Your task to perform on an android device: Open privacy settings Image 0: 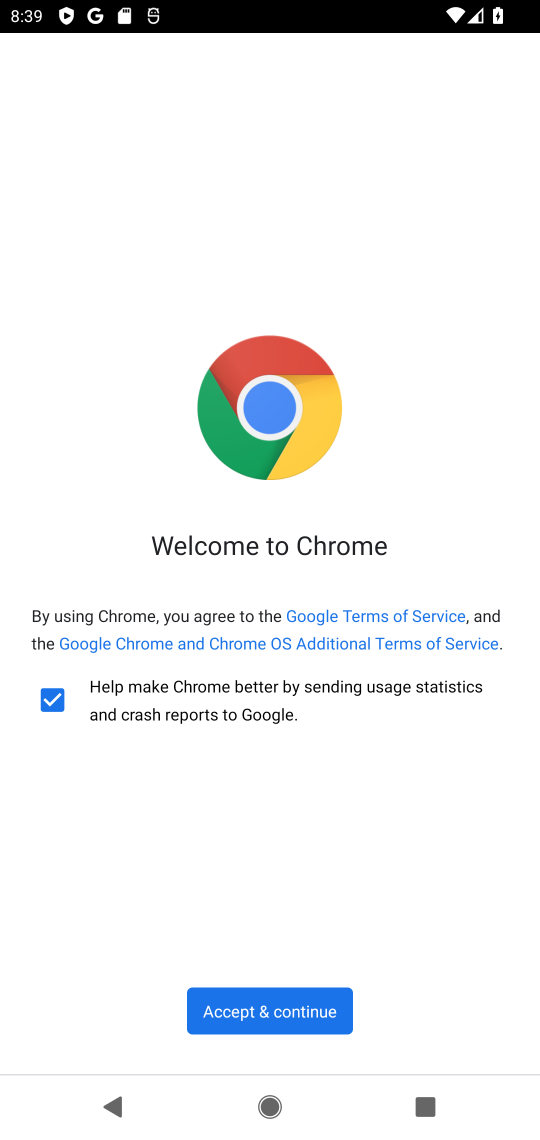
Step 0: press home button
Your task to perform on an android device: Open privacy settings Image 1: 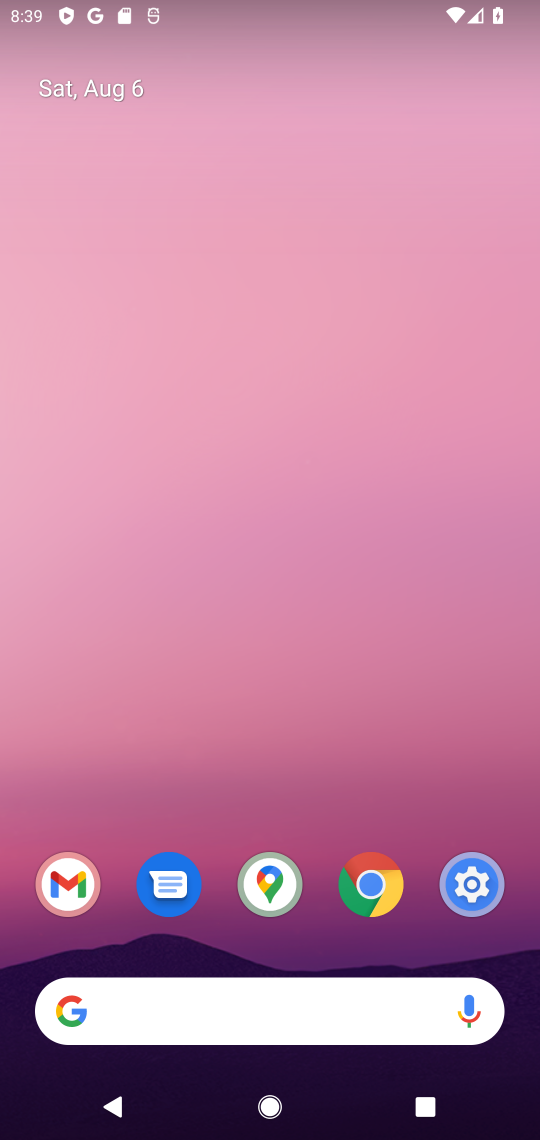
Step 1: click (472, 883)
Your task to perform on an android device: Open privacy settings Image 2: 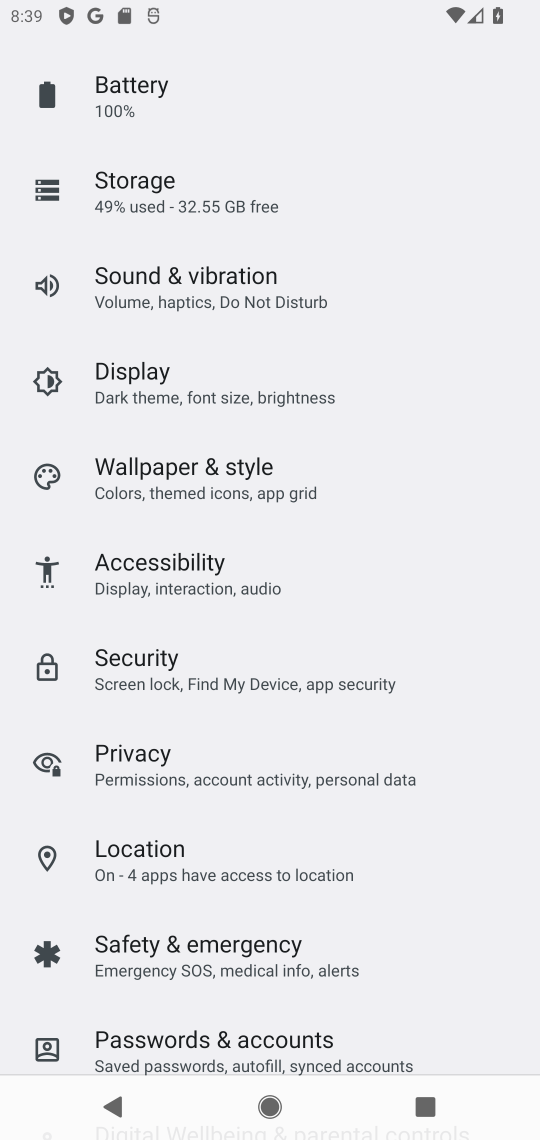
Step 2: click (143, 757)
Your task to perform on an android device: Open privacy settings Image 3: 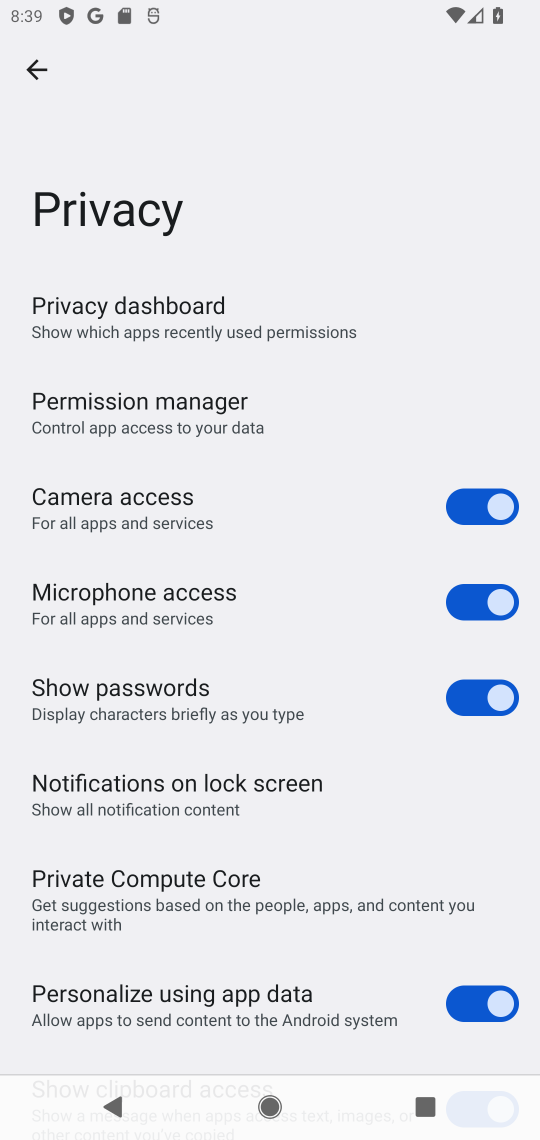
Step 3: task complete